Your task to perform on an android device: Open ESPN.com Image 0: 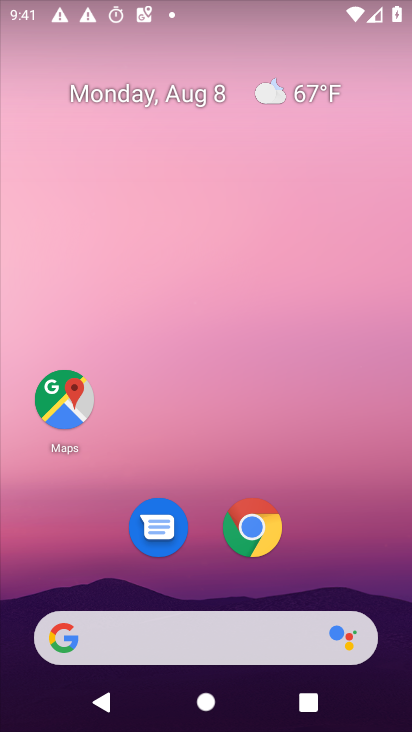
Step 0: click (258, 517)
Your task to perform on an android device: Open ESPN.com Image 1: 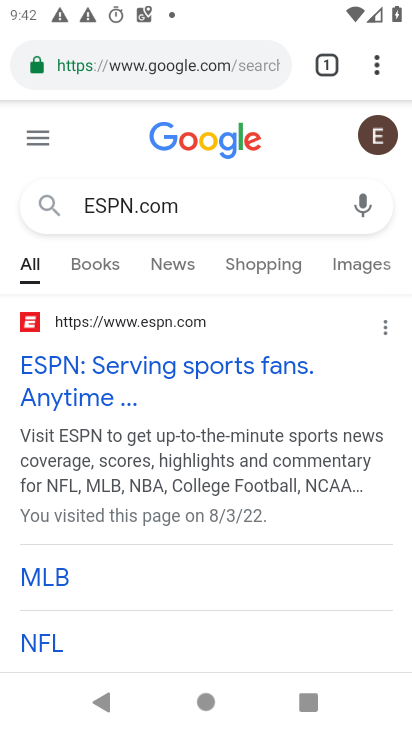
Step 1: task complete